Your task to perform on an android device: choose inbox layout in the gmail app Image 0: 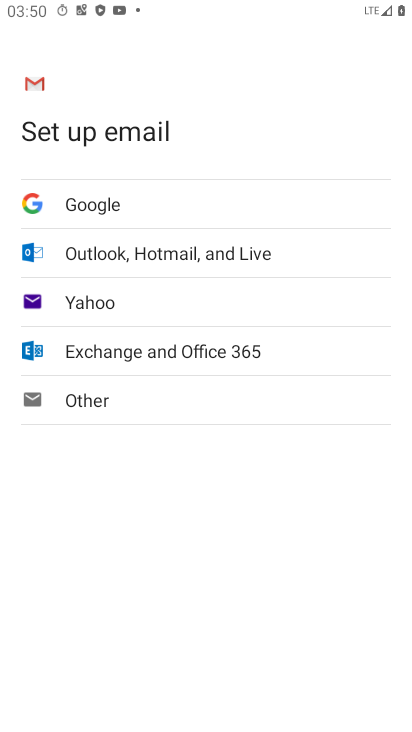
Step 0: press back button
Your task to perform on an android device: choose inbox layout in the gmail app Image 1: 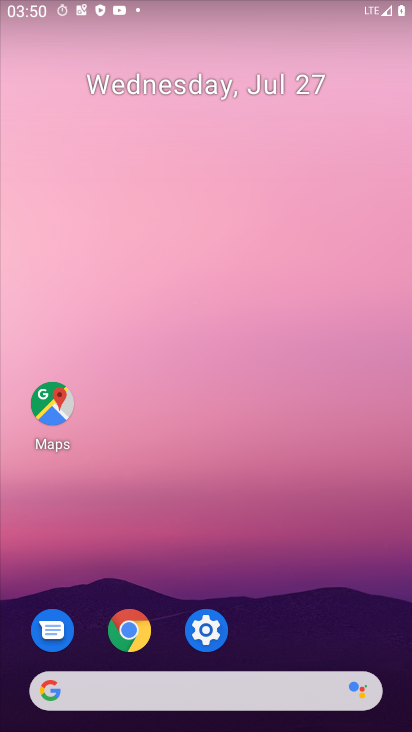
Step 1: drag from (221, 619) to (207, 125)
Your task to perform on an android device: choose inbox layout in the gmail app Image 2: 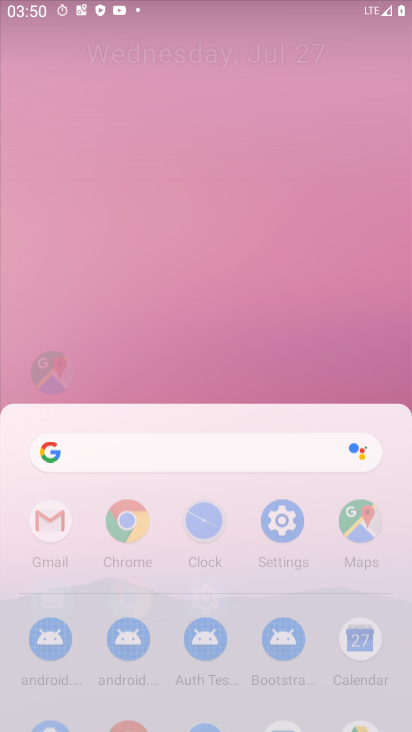
Step 2: drag from (345, 477) to (291, 143)
Your task to perform on an android device: choose inbox layout in the gmail app Image 3: 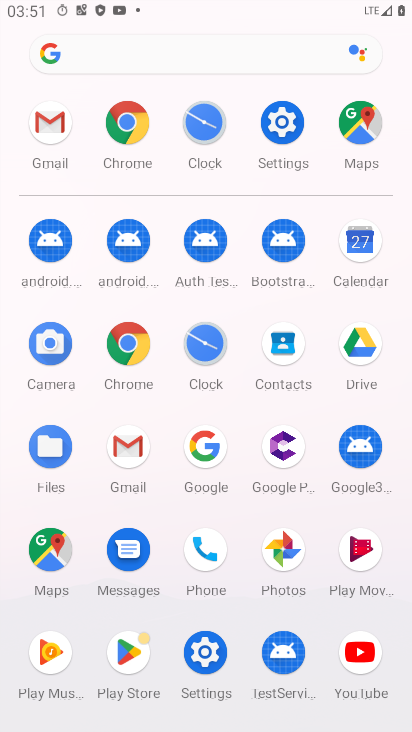
Step 3: drag from (323, 346) to (323, 70)
Your task to perform on an android device: choose inbox layout in the gmail app Image 4: 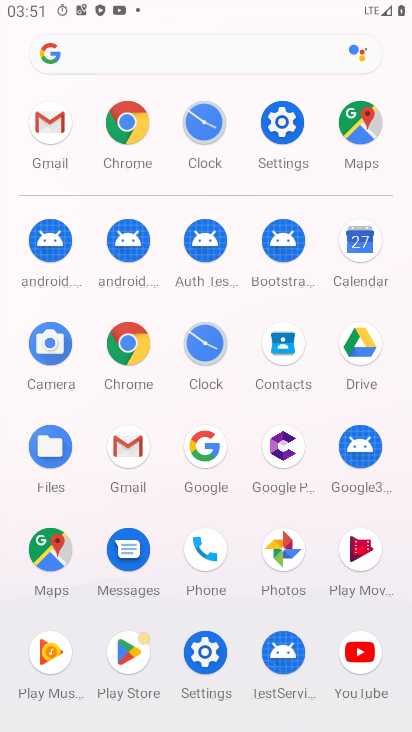
Step 4: click (127, 437)
Your task to perform on an android device: choose inbox layout in the gmail app Image 5: 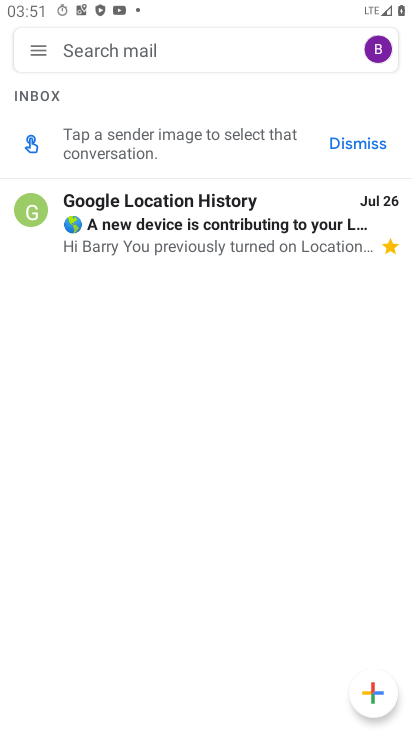
Step 5: click (34, 53)
Your task to perform on an android device: choose inbox layout in the gmail app Image 6: 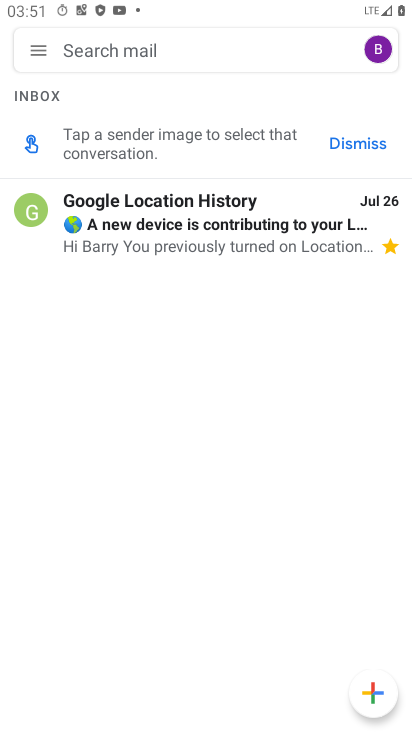
Step 6: click (36, 51)
Your task to perform on an android device: choose inbox layout in the gmail app Image 7: 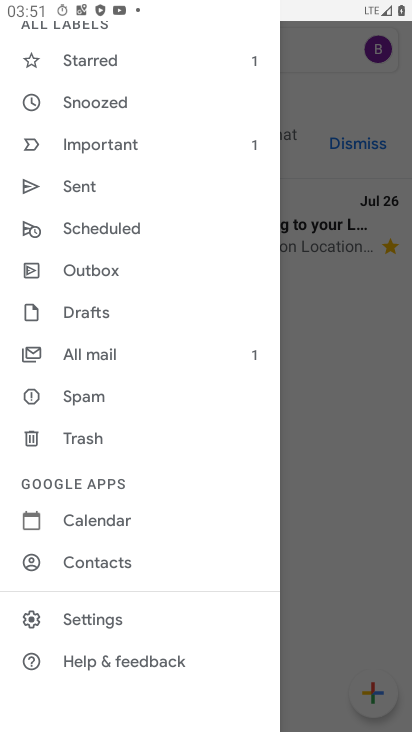
Step 7: click (311, 428)
Your task to perform on an android device: choose inbox layout in the gmail app Image 8: 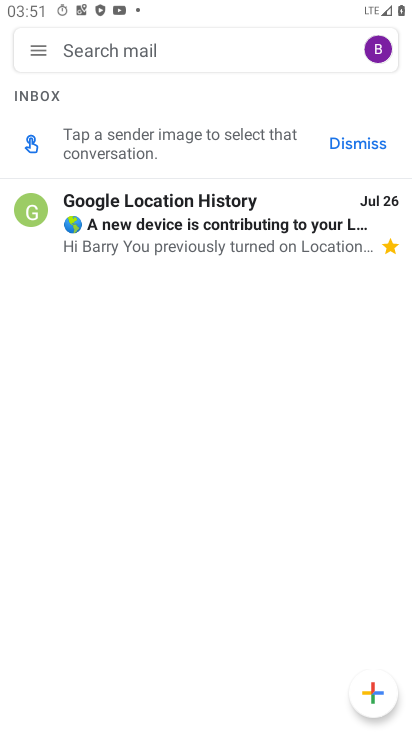
Step 8: click (36, 55)
Your task to perform on an android device: choose inbox layout in the gmail app Image 9: 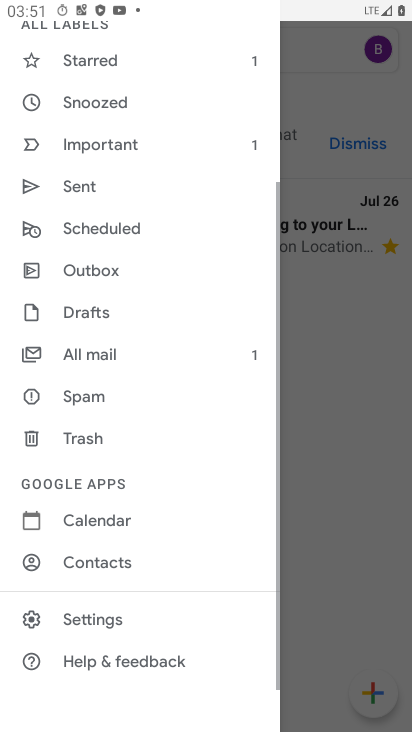
Step 9: drag from (115, 651) to (105, 293)
Your task to perform on an android device: choose inbox layout in the gmail app Image 10: 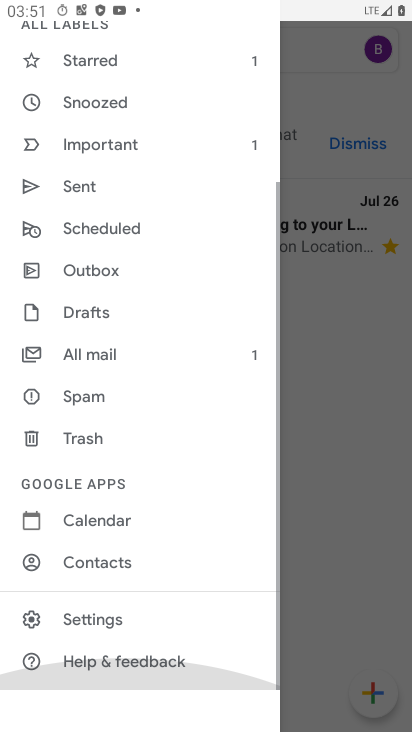
Step 10: drag from (111, 517) to (144, 205)
Your task to perform on an android device: choose inbox layout in the gmail app Image 11: 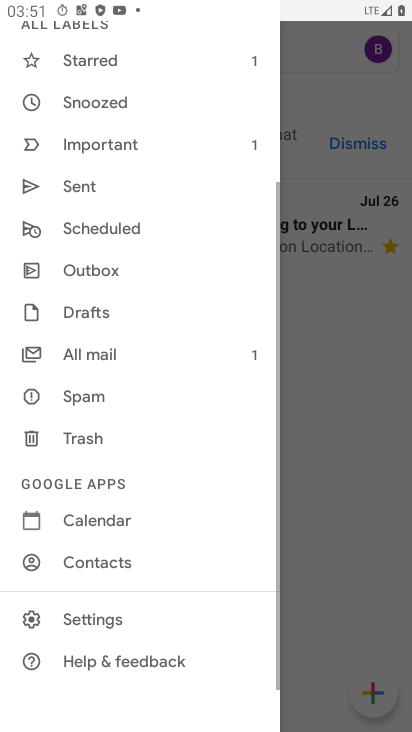
Step 11: click (74, 620)
Your task to perform on an android device: choose inbox layout in the gmail app Image 12: 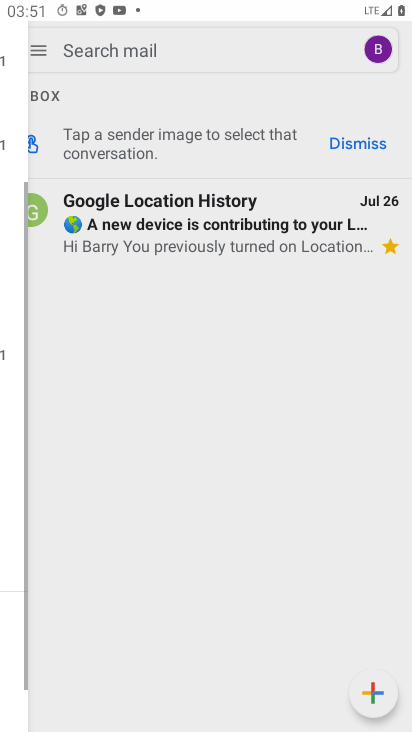
Step 12: click (74, 620)
Your task to perform on an android device: choose inbox layout in the gmail app Image 13: 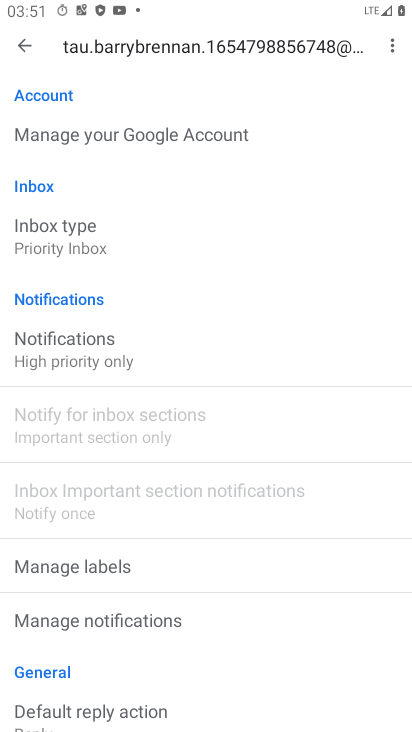
Step 13: click (50, 240)
Your task to perform on an android device: choose inbox layout in the gmail app Image 14: 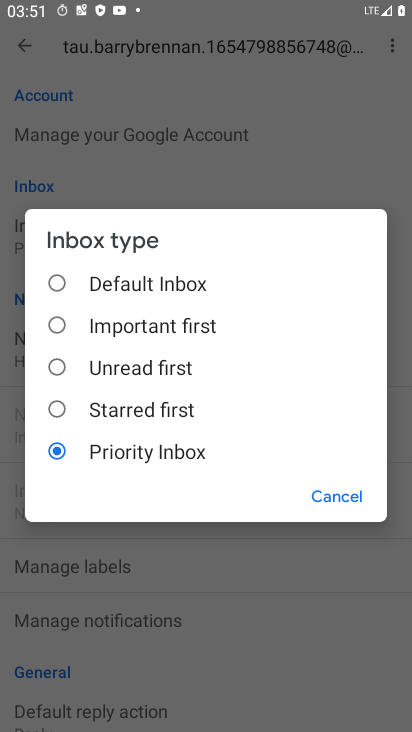
Step 14: click (56, 272)
Your task to perform on an android device: choose inbox layout in the gmail app Image 15: 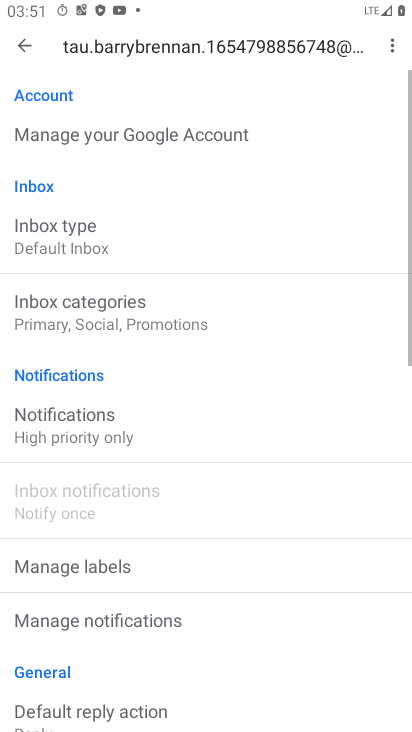
Step 15: task complete